Your task to perform on an android device: change alarm snooze length Image 0: 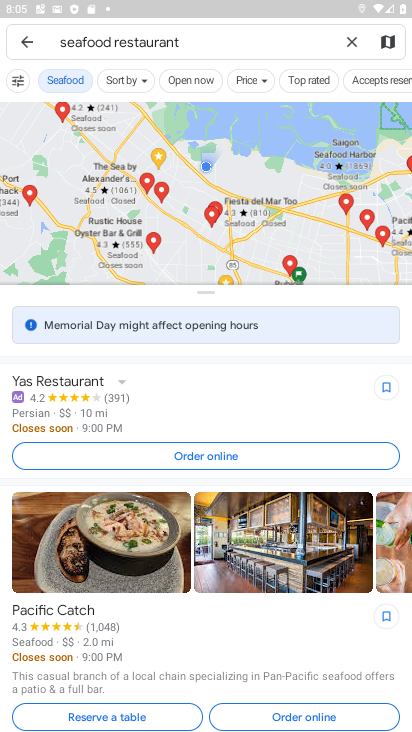
Step 0: press home button
Your task to perform on an android device: change alarm snooze length Image 1: 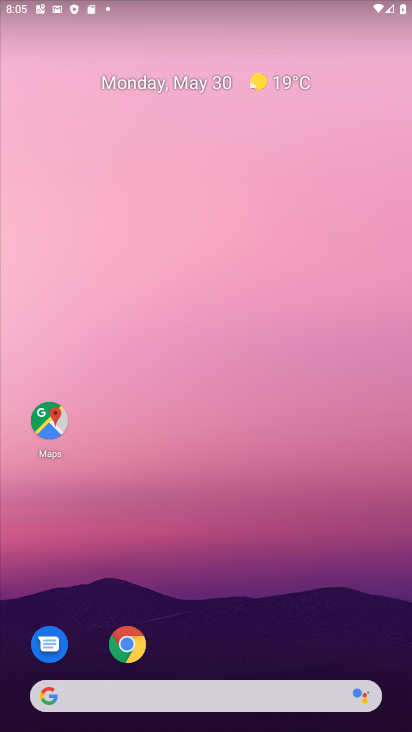
Step 1: drag from (184, 618) to (224, 154)
Your task to perform on an android device: change alarm snooze length Image 2: 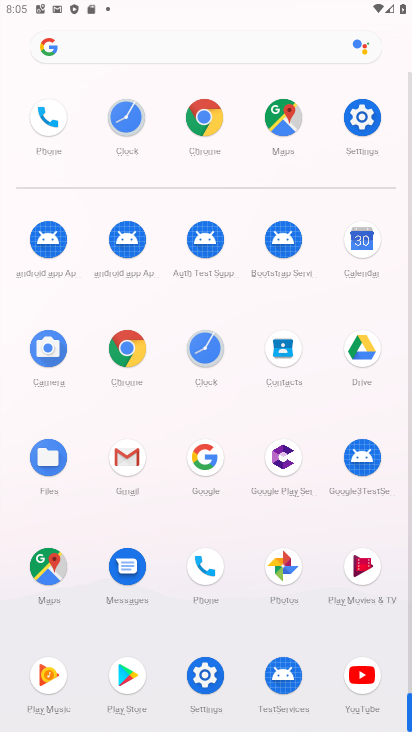
Step 2: click (199, 349)
Your task to perform on an android device: change alarm snooze length Image 3: 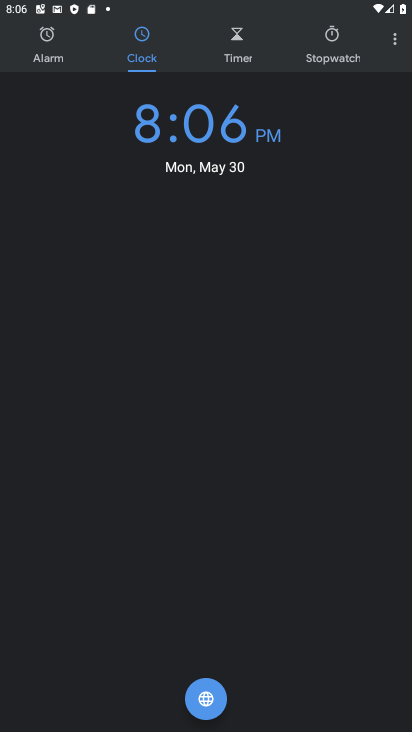
Step 3: click (394, 42)
Your task to perform on an android device: change alarm snooze length Image 4: 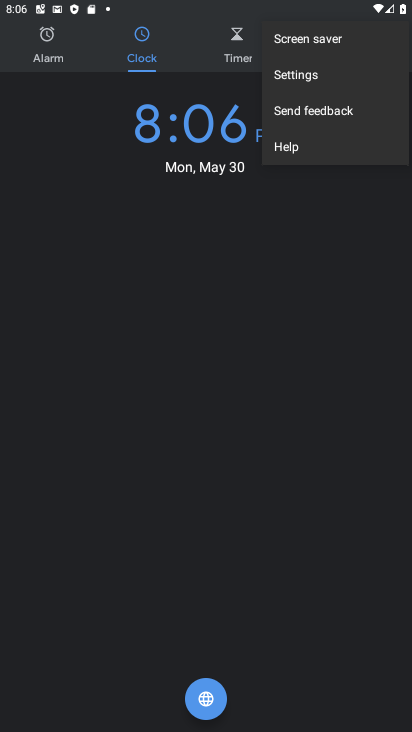
Step 4: click (306, 80)
Your task to perform on an android device: change alarm snooze length Image 5: 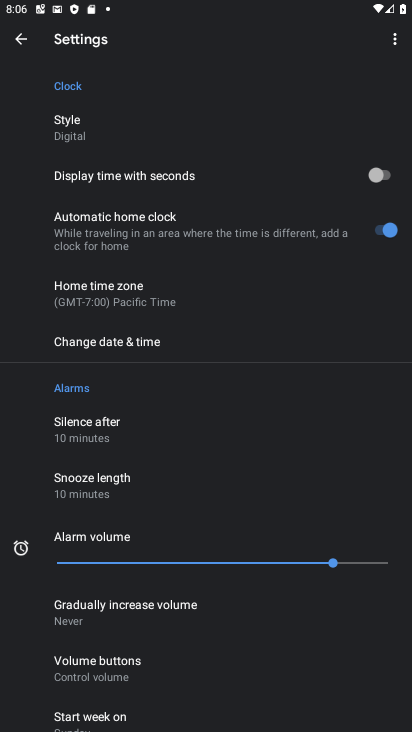
Step 5: click (160, 487)
Your task to perform on an android device: change alarm snooze length Image 6: 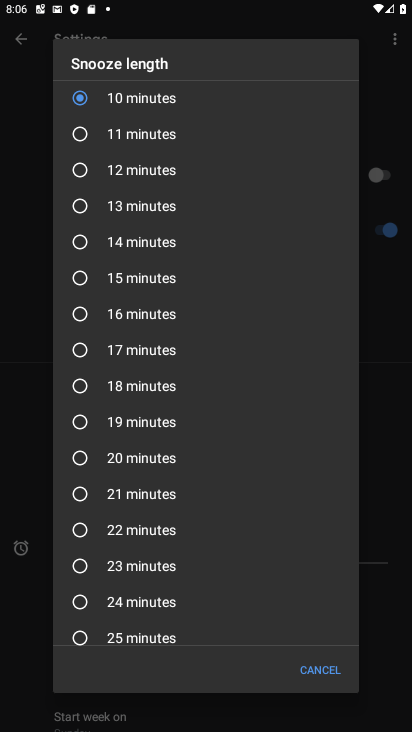
Step 6: task complete